Your task to perform on an android device: open device folders in google photos Image 0: 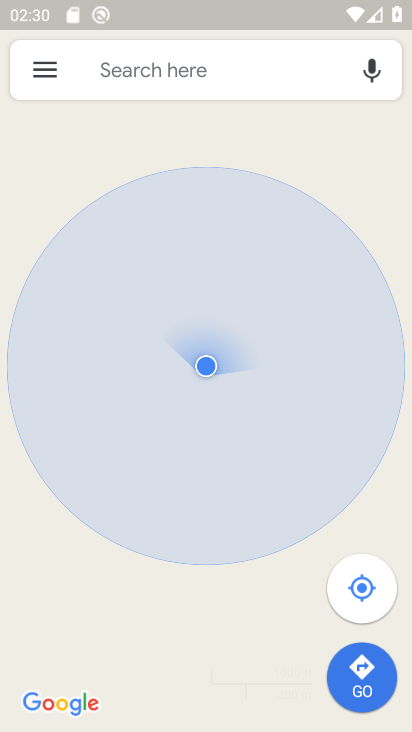
Step 0: press home button
Your task to perform on an android device: open device folders in google photos Image 1: 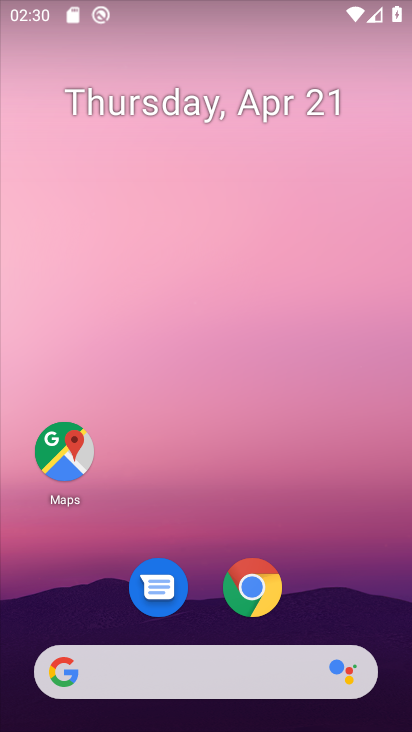
Step 1: drag from (371, 505) to (411, 180)
Your task to perform on an android device: open device folders in google photos Image 2: 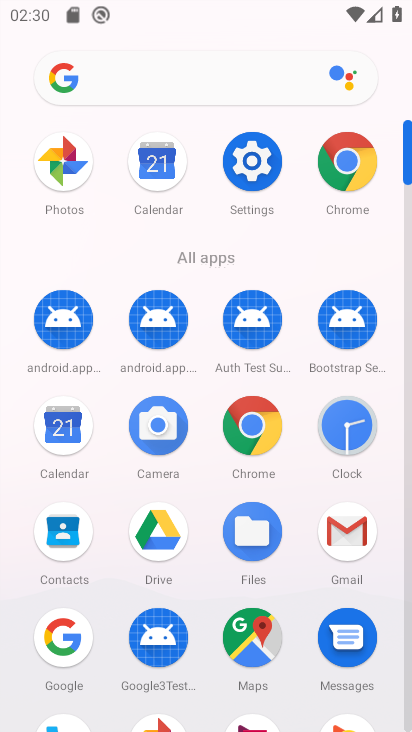
Step 2: drag from (195, 603) to (166, 230)
Your task to perform on an android device: open device folders in google photos Image 3: 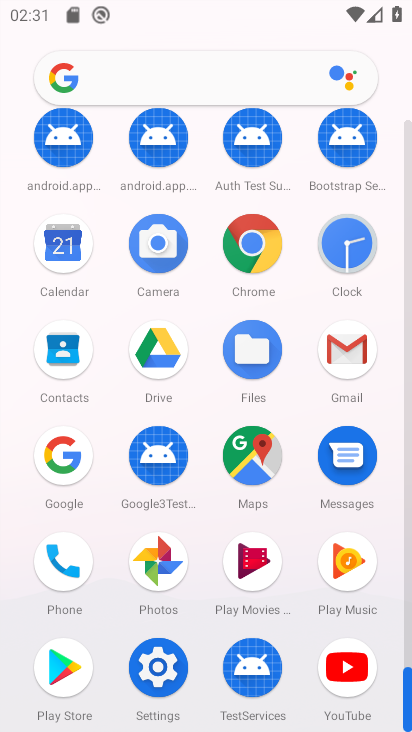
Step 3: click (185, 534)
Your task to perform on an android device: open device folders in google photos Image 4: 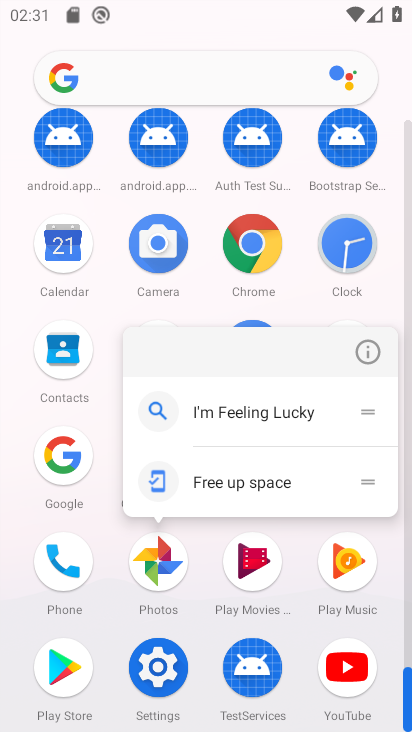
Step 4: click (163, 561)
Your task to perform on an android device: open device folders in google photos Image 5: 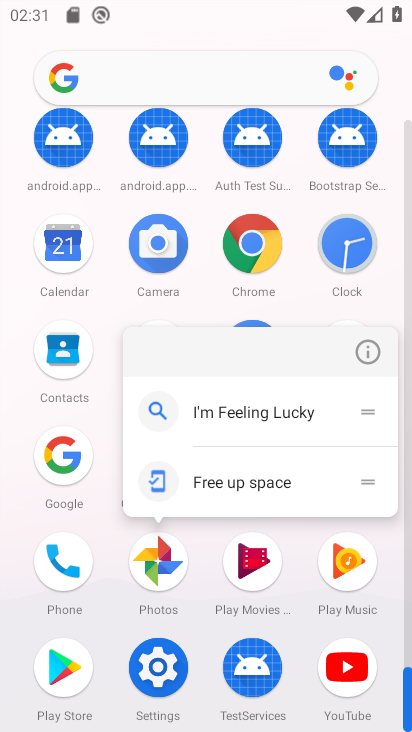
Step 5: click (167, 556)
Your task to perform on an android device: open device folders in google photos Image 6: 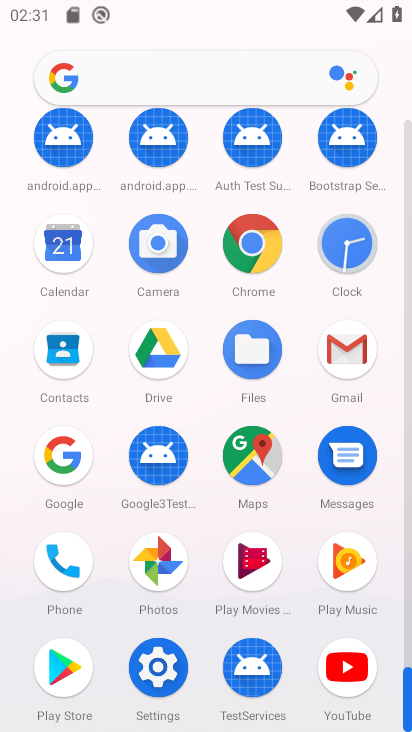
Step 6: click (154, 553)
Your task to perform on an android device: open device folders in google photos Image 7: 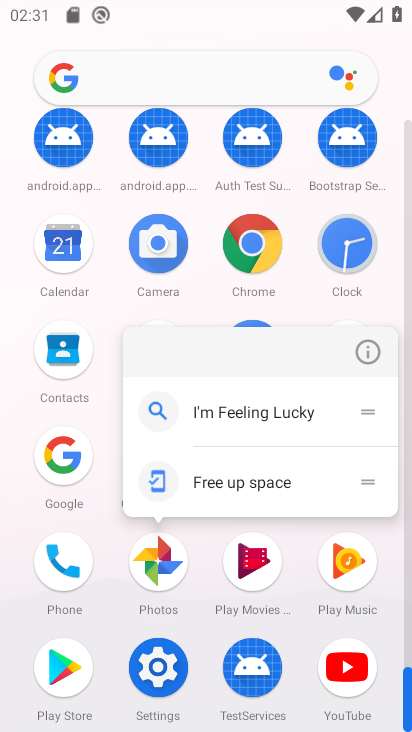
Step 7: click (154, 553)
Your task to perform on an android device: open device folders in google photos Image 8: 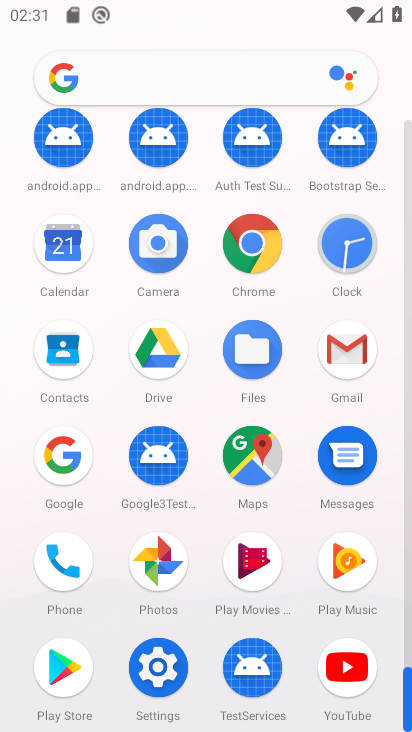
Step 8: click (154, 553)
Your task to perform on an android device: open device folders in google photos Image 9: 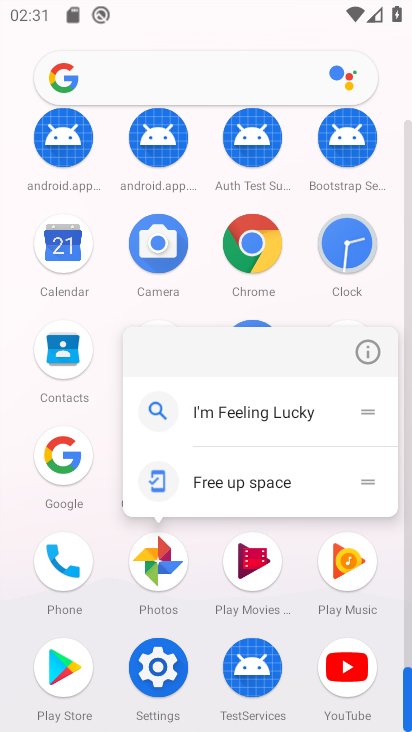
Step 9: click (166, 582)
Your task to perform on an android device: open device folders in google photos Image 10: 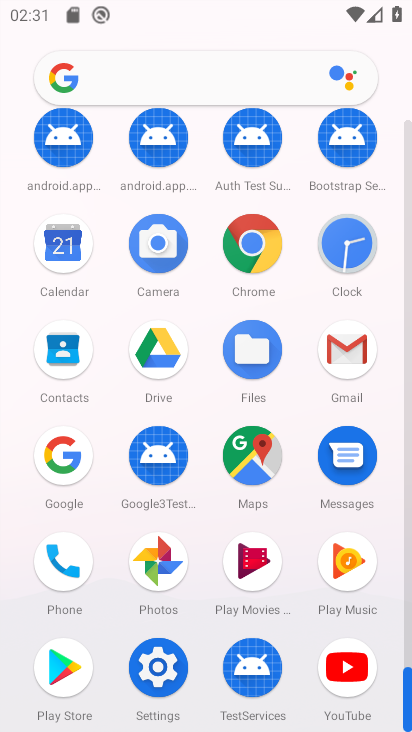
Step 10: click (166, 582)
Your task to perform on an android device: open device folders in google photos Image 11: 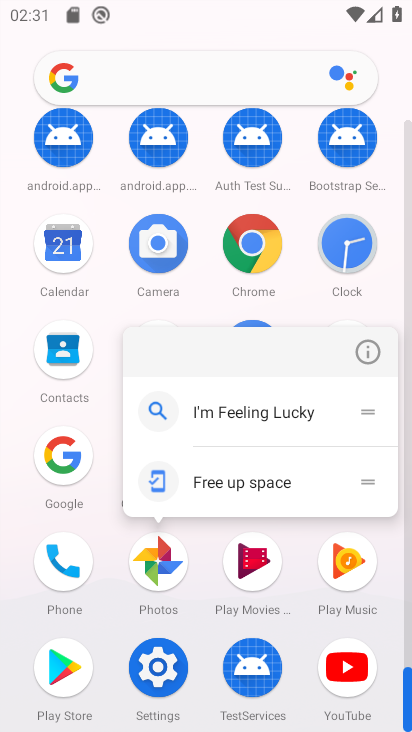
Step 11: click (151, 559)
Your task to perform on an android device: open device folders in google photos Image 12: 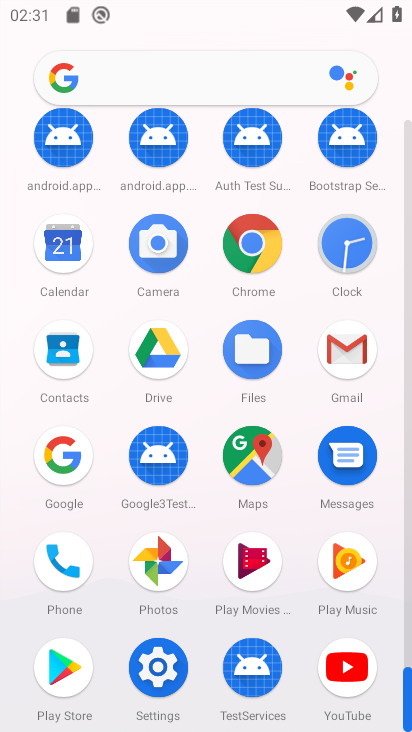
Step 12: click (165, 564)
Your task to perform on an android device: open device folders in google photos Image 13: 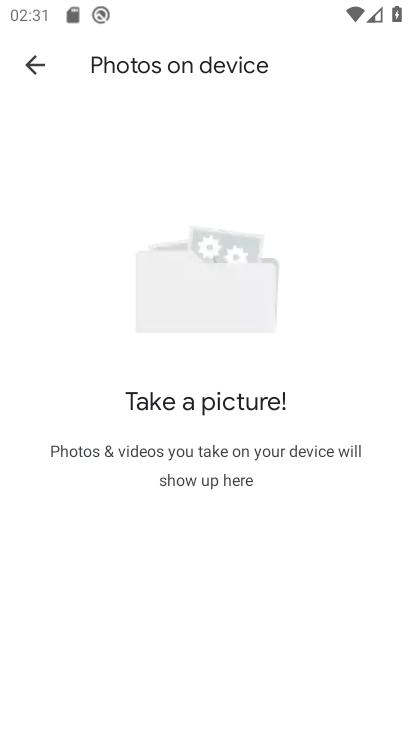
Step 13: task complete